Your task to perform on an android device: check out phone information Image 0: 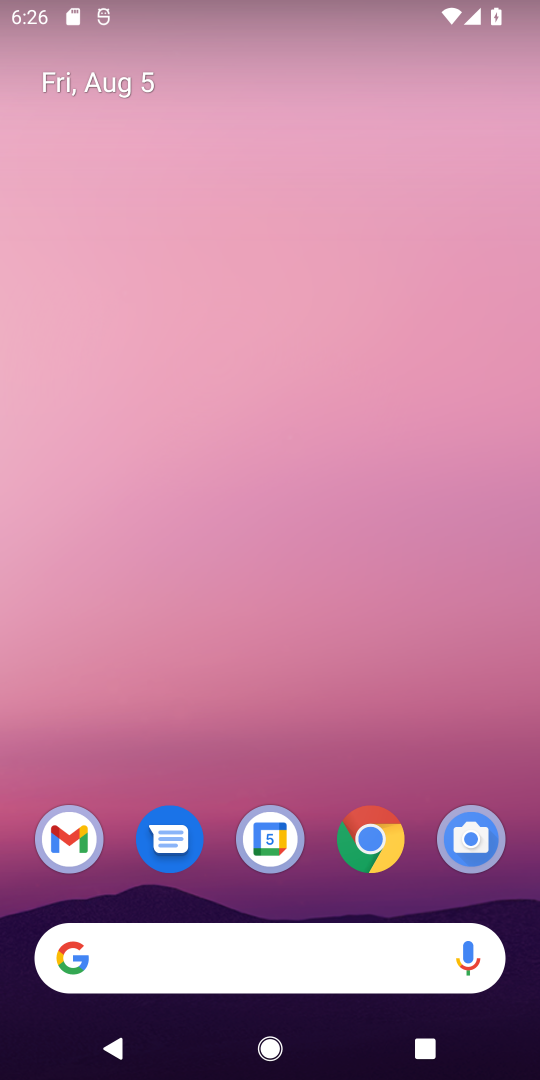
Step 0: drag from (315, 604) to (315, 175)
Your task to perform on an android device: check out phone information Image 1: 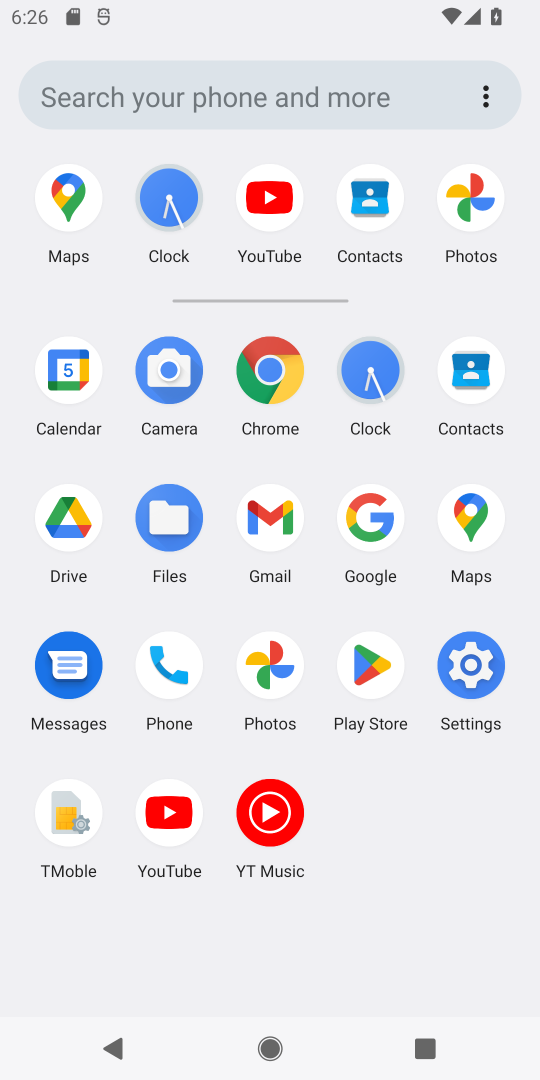
Step 1: click (481, 652)
Your task to perform on an android device: check out phone information Image 2: 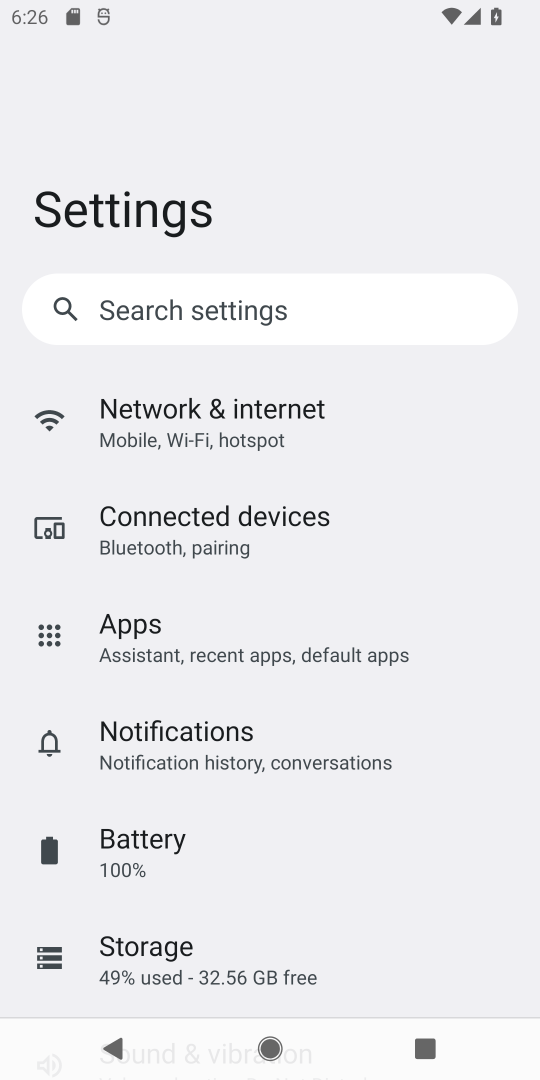
Step 2: drag from (268, 987) to (313, 272)
Your task to perform on an android device: check out phone information Image 3: 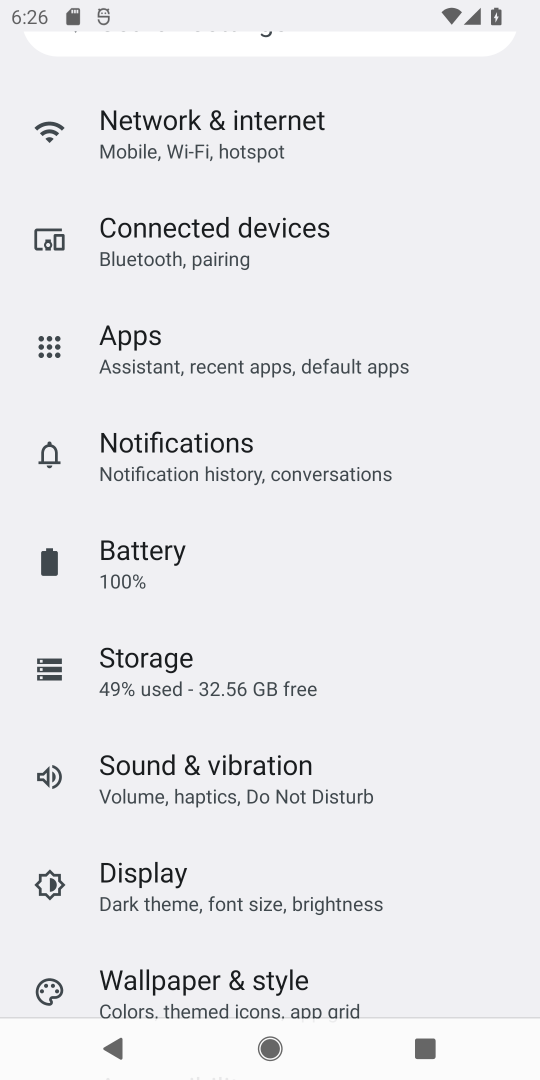
Step 3: drag from (278, 905) to (316, 266)
Your task to perform on an android device: check out phone information Image 4: 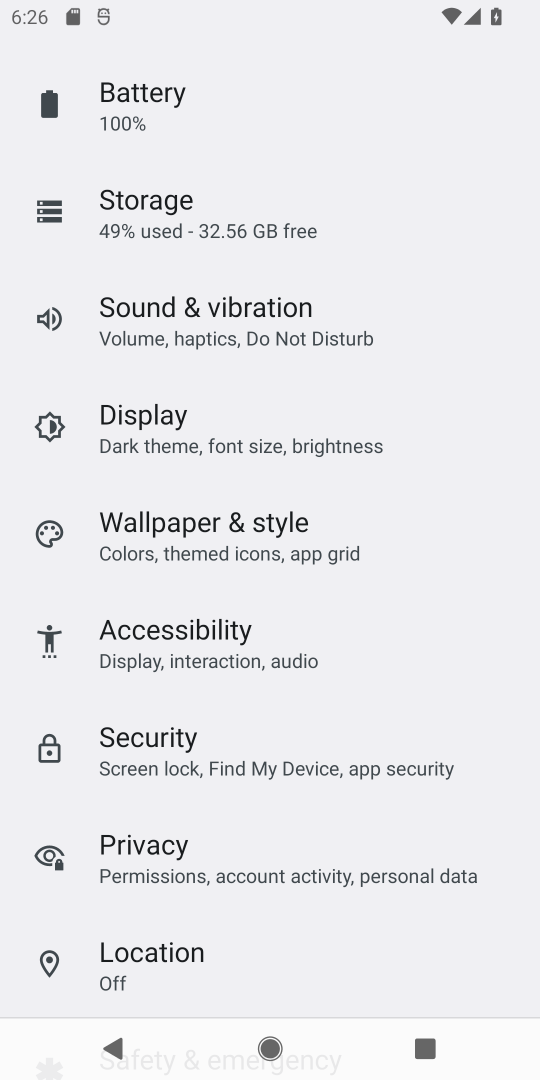
Step 4: drag from (272, 891) to (292, 289)
Your task to perform on an android device: check out phone information Image 5: 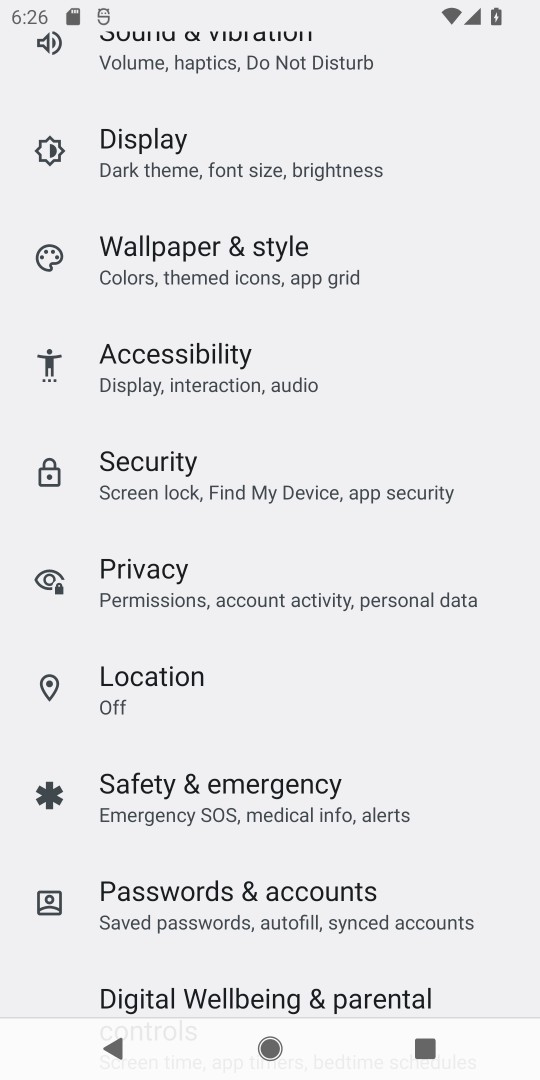
Step 5: drag from (271, 911) to (337, 241)
Your task to perform on an android device: check out phone information Image 6: 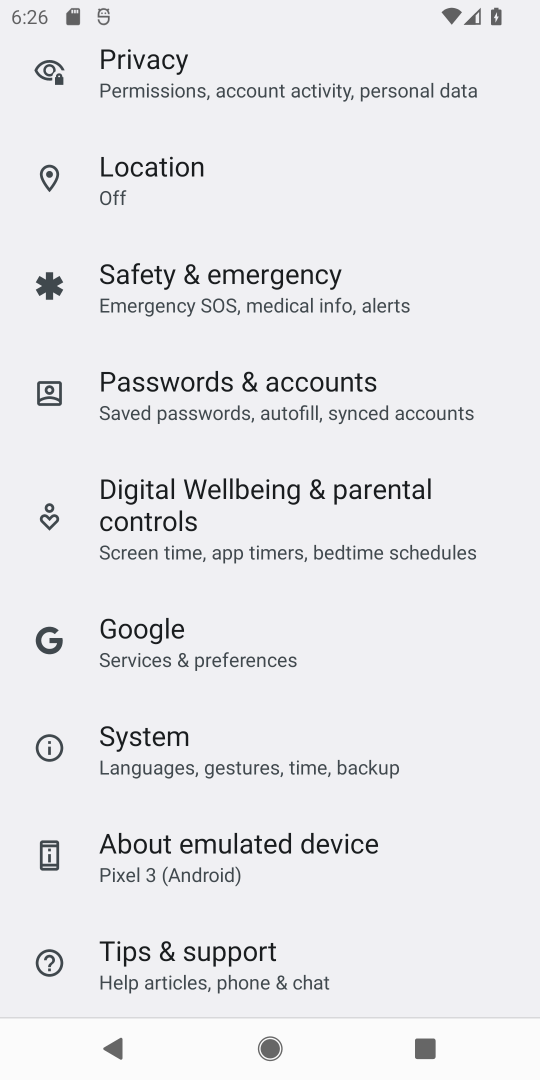
Step 6: drag from (349, 923) to (394, 235)
Your task to perform on an android device: check out phone information Image 7: 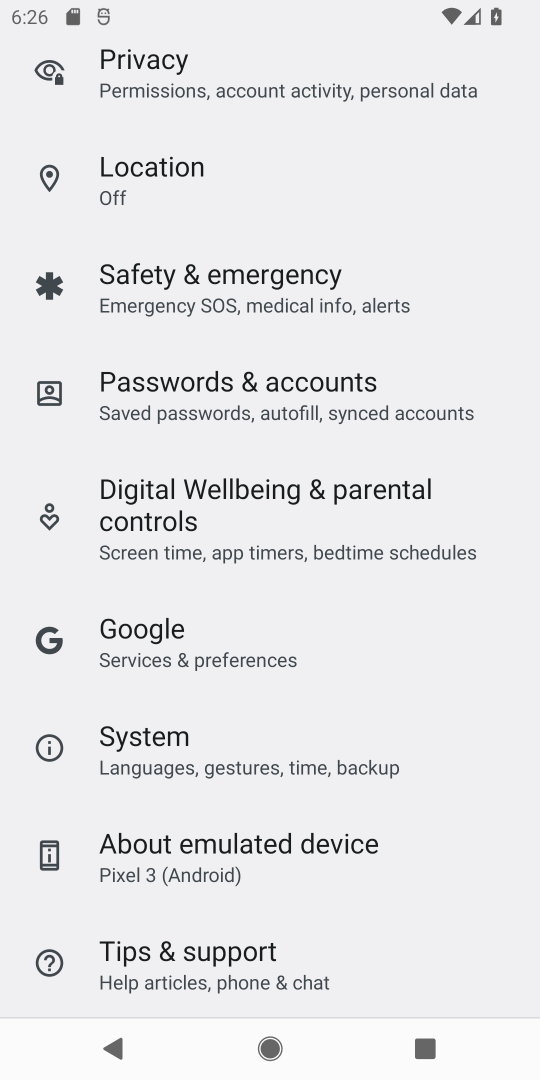
Step 7: click (267, 868)
Your task to perform on an android device: check out phone information Image 8: 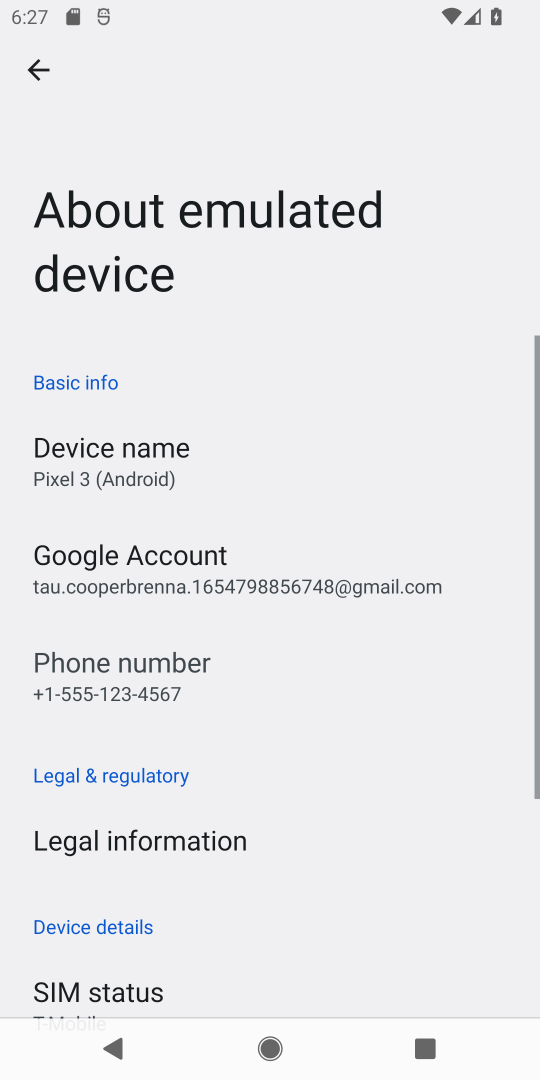
Step 8: task complete